Your task to perform on an android device: turn on sleep mode Image 0: 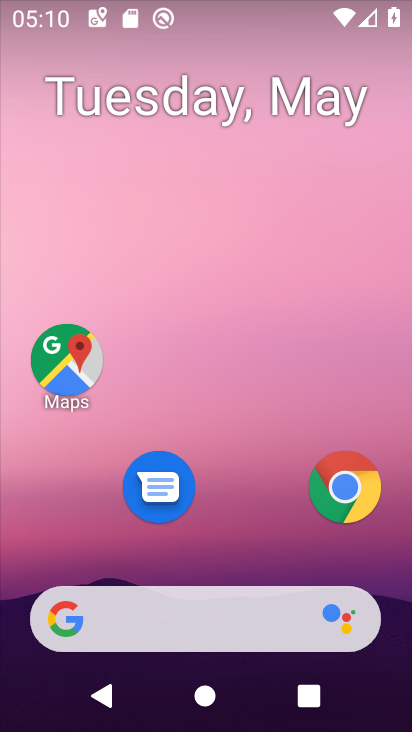
Step 0: drag from (240, 563) to (282, 18)
Your task to perform on an android device: turn on sleep mode Image 1: 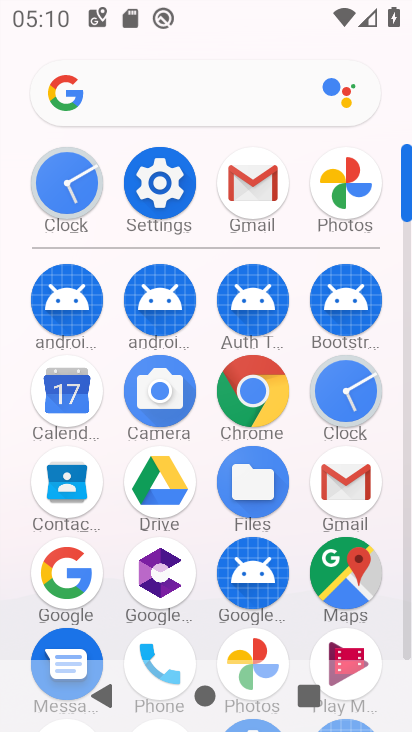
Step 1: click (167, 171)
Your task to perform on an android device: turn on sleep mode Image 2: 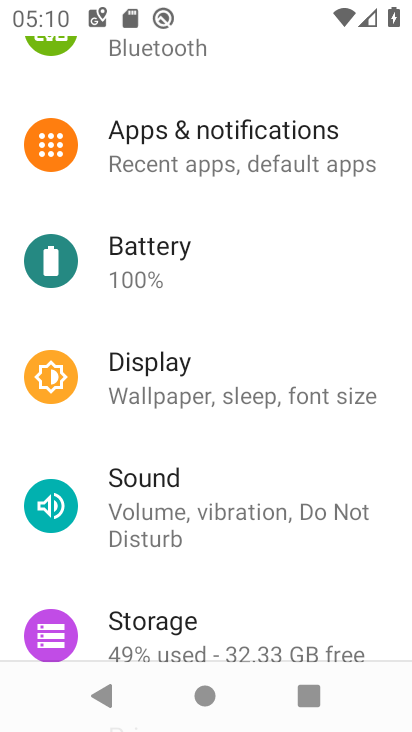
Step 2: click (218, 405)
Your task to perform on an android device: turn on sleep mode Image 3: 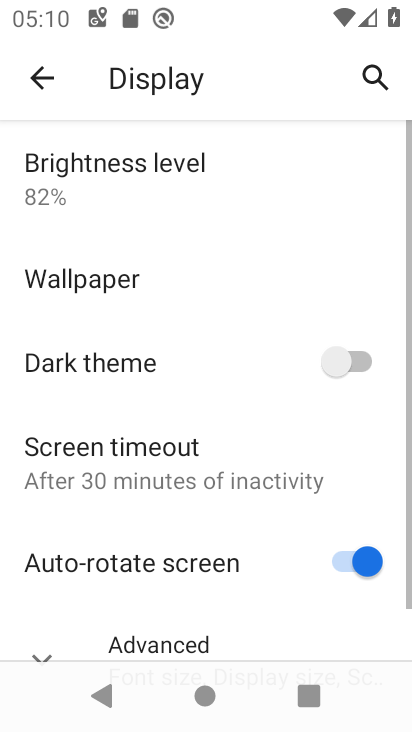
Step 3: click (186, 454)
Your task to perform on an android device: turn on sleep mode Image 4: 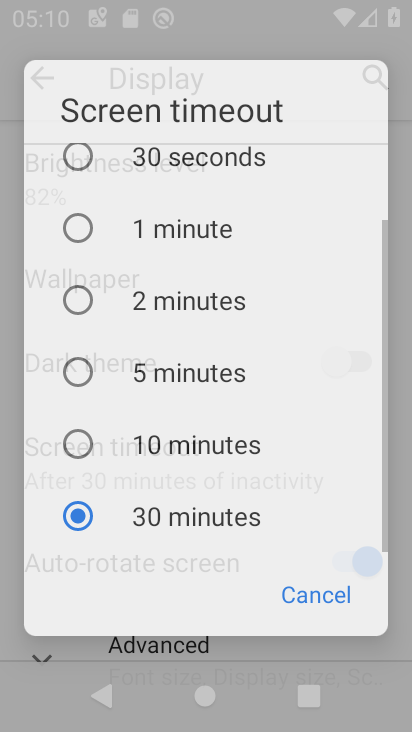
Step 4: click (188, 286)
Your task to perform on an android device: turn on sleep mode Image 5: 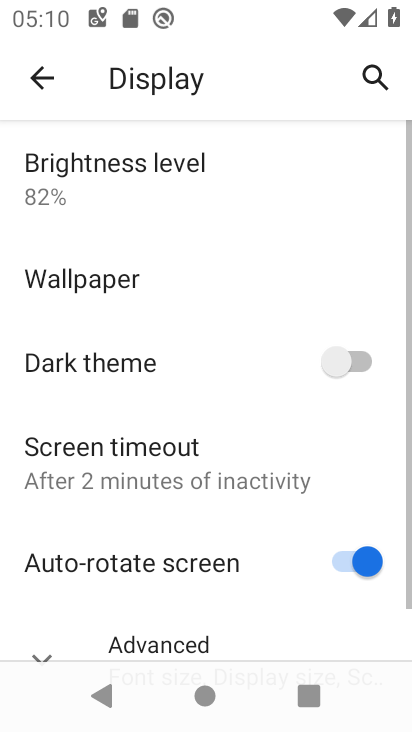
Step 5: task complete